Your task to perform on an android device: Open the calendar app, open the side menu, and click the "Day" option Image 0: 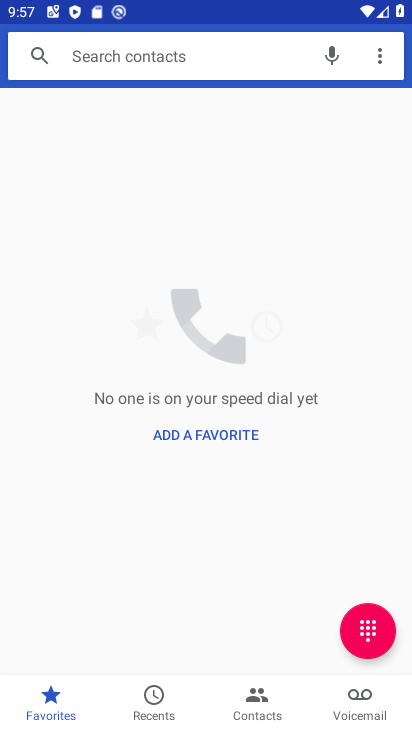
Step 0: press home button
Your task to perform on an android device: Open the calendar app, open the side menu, and click the "Day" option Image 1: 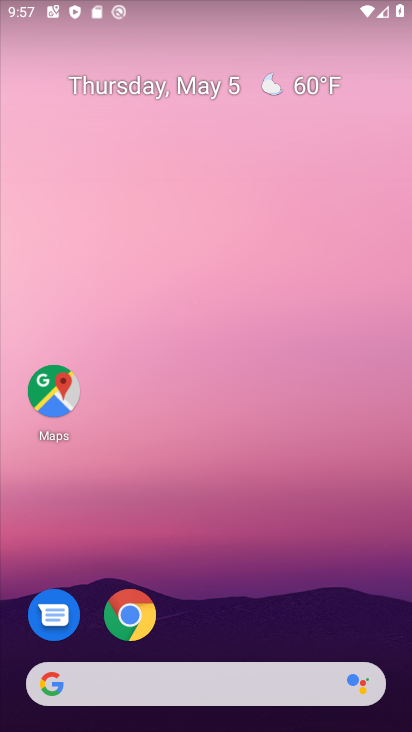
Step 1: drag from (234, 614) to (255, 126)
Your task to perform on an android device: Open the calendar app, open the side menu, and click the "Day" option Image 2: 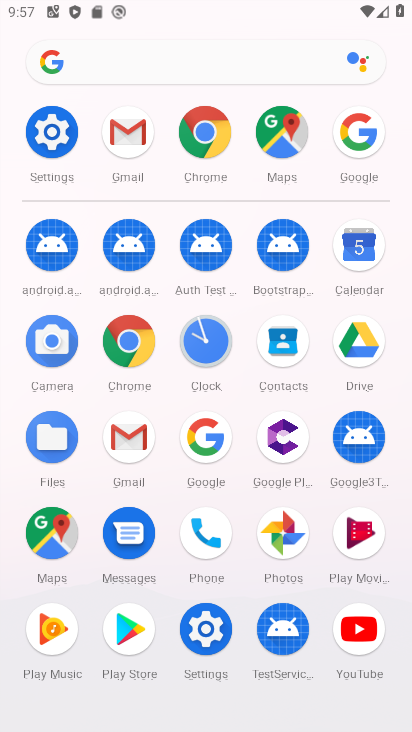
Step 2: click (361, 248)
Your task to perform on an android device: Open the calendar app, open the side menu, and click the "Day" option Image 3: 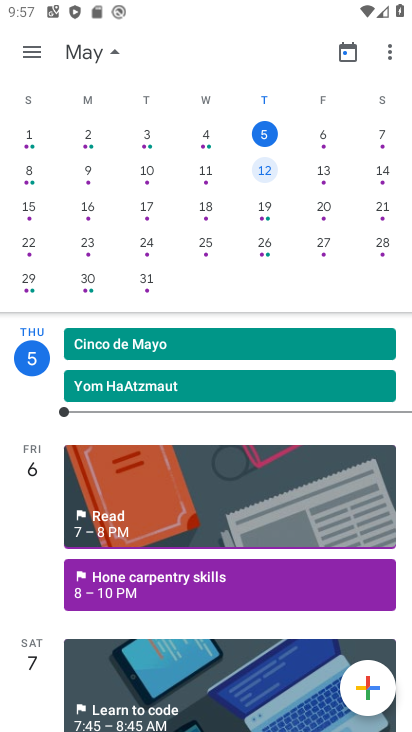
Step 3: click (32, 50)
Your task to perform on an android device: Open the calendar app, open the side menu, and click the "Day" option Image 4: 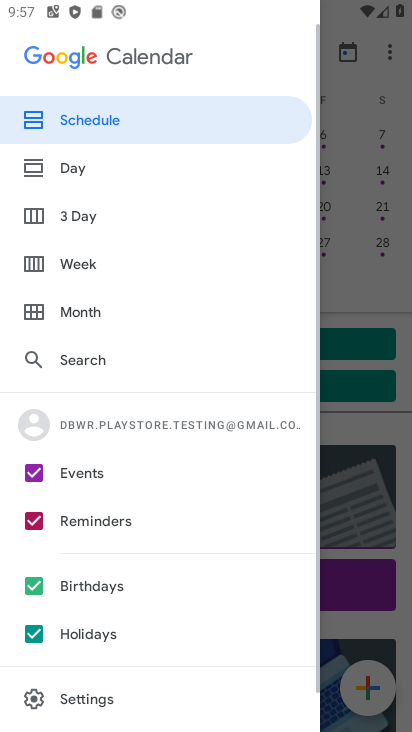
Step 4: click (100, 169)
Your task to perform on an android device: Open the calendar app, open the side menu, and click the "Day" option Image 5: 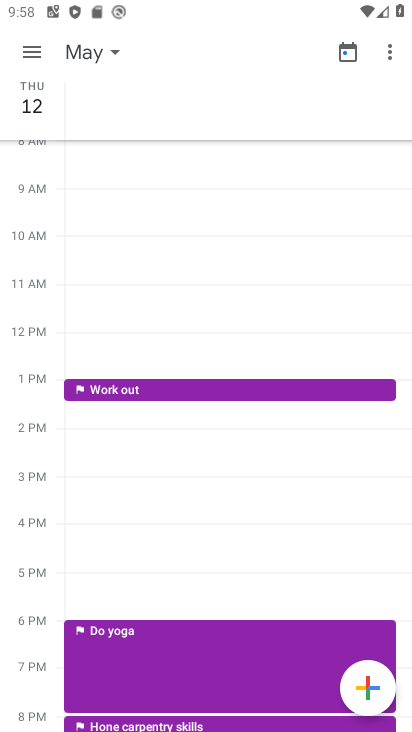
Step 5: task complete